Your task to perform on an android device: check android version Image 0: 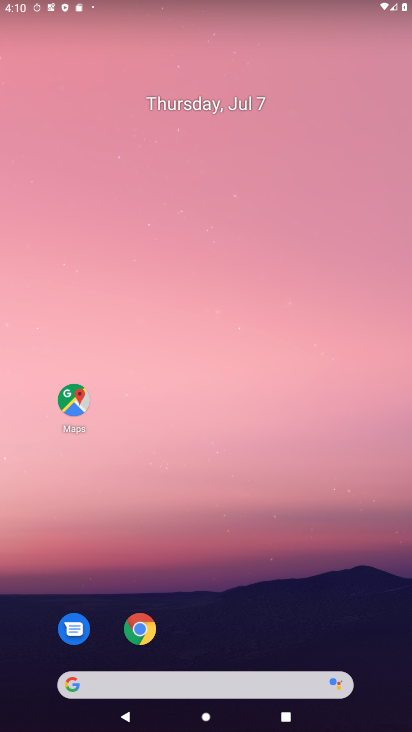
Step 0: drag from (196, 614) to (296, 2)
Your task to perform on an android device: check android version Image 1: 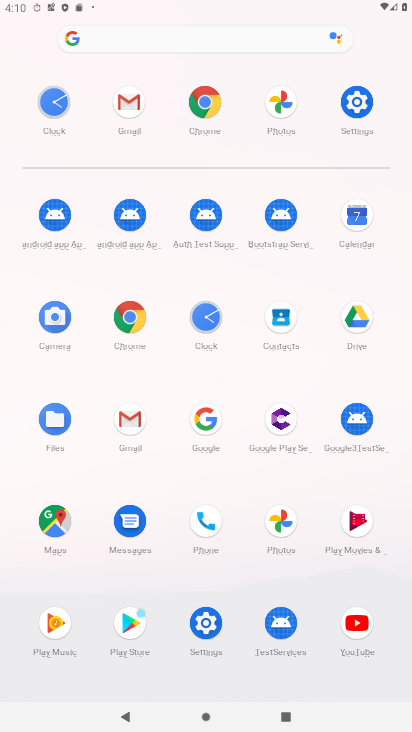
Step 1: click (352, 118)
Your task to perform on an android device: check android version Image 2: 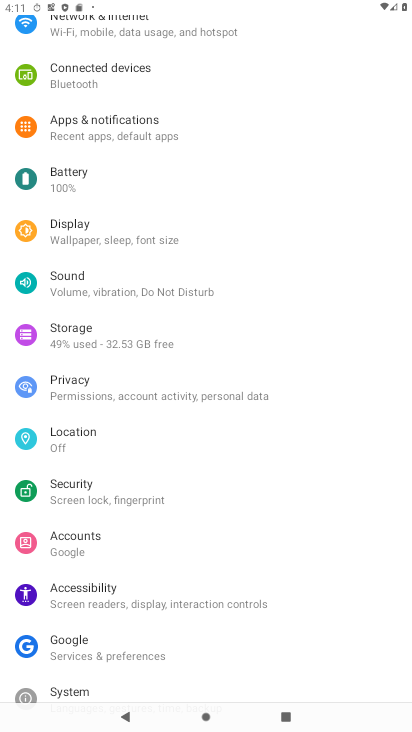
Step 2: drag from (87, 505) to (116, 306)
Your task to perform on an android device: check android version Image 3: 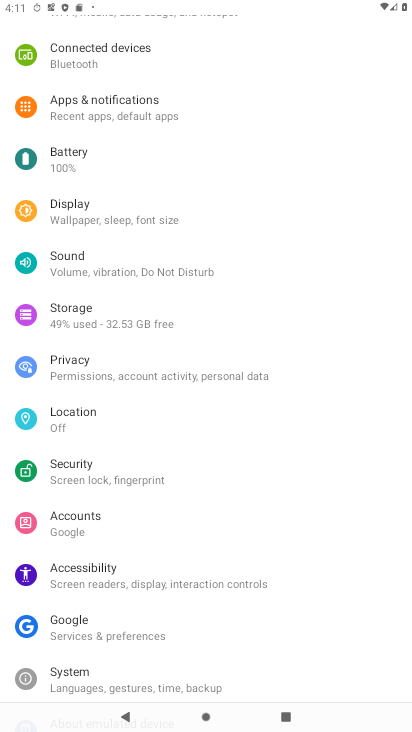
Step 3: drag from (103, 671) to (194, 246)
Your task to perform on an android device: check android version Image 4: 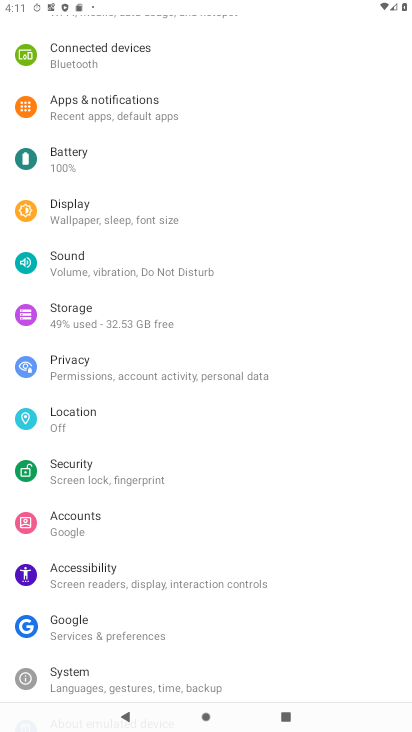
Step 4: click (65, 682)
Your task to perform on an android device: check android version Image 5: 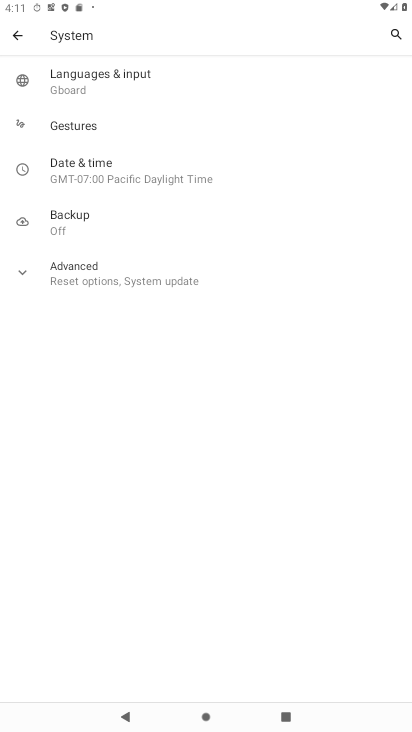
Step 5: click (12, 32)
Your task to perform on an android device: check android version Image 6: 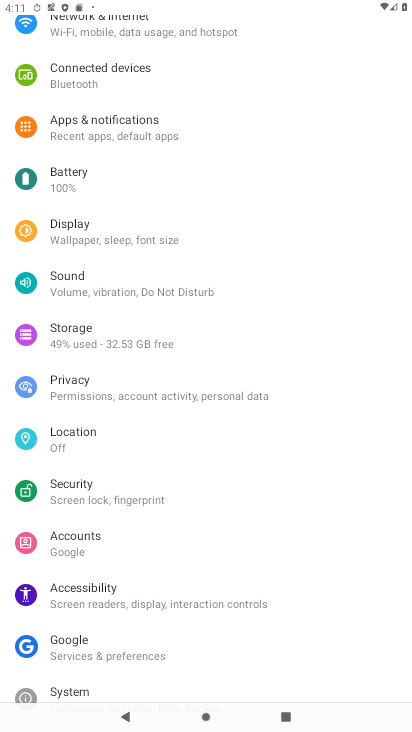
Step 6: drag from (78, 625) to (124, 238)
Your task to perform on an android device: check android version Image 7: 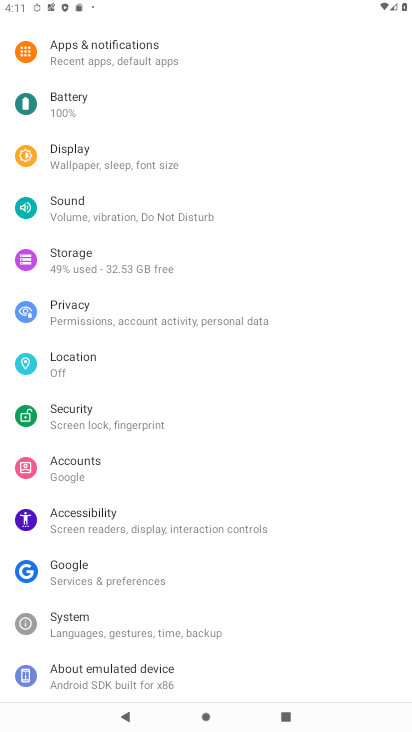
Step 7: click (126, 687)
Your task to perform on an android device: check android version Image 8: 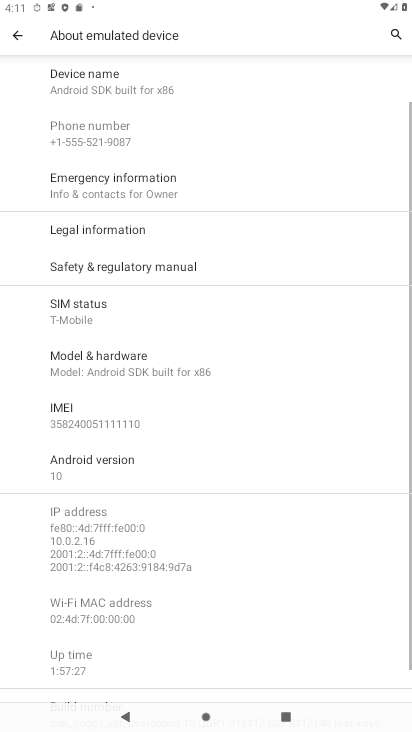
Step 8: click (126, 476)
Your task to perform on an android device: check android version Image 9: 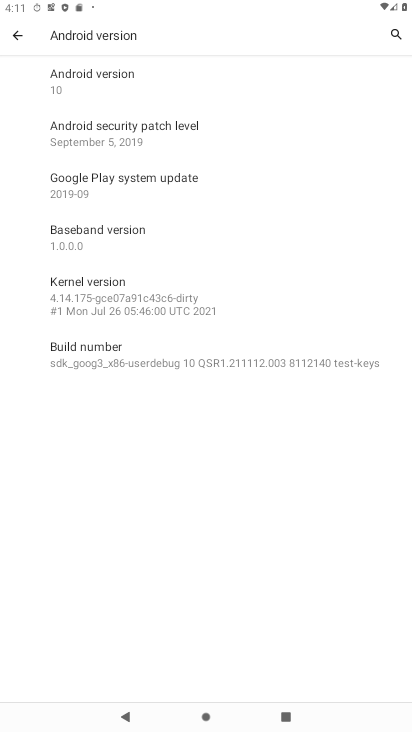
Step 9: task complete